Your task to perform on an android device: turn notification dots off Image 0: 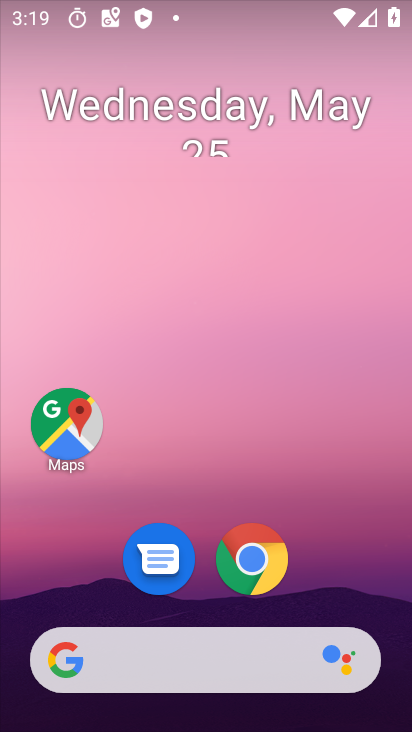
Step 0: press home button
Your task to perform on an android device: turn notification dots off Image 1: 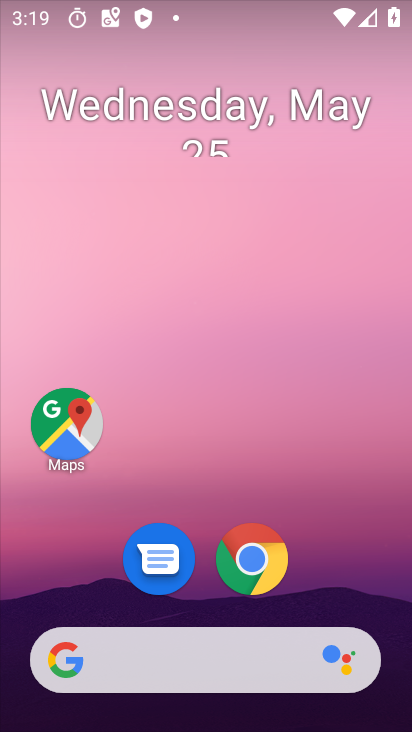
Step 1: drag from (210, 605) to (259, 57)
Your task to perform on an android device: turn notification dots off Image 2: 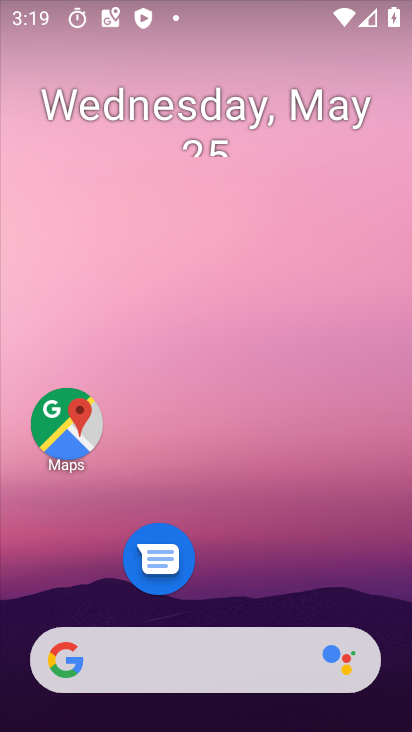
Step 2: drag from (217, 602) to (195, 29)
Your task to perform on an android device: turn notification dots off Image 3: 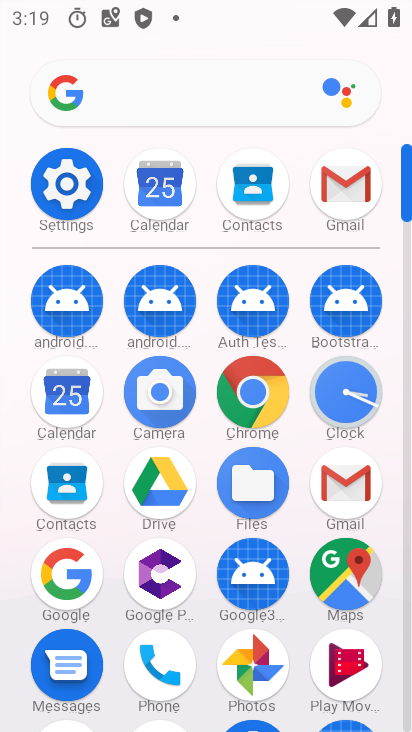
Step 3: click (64, 178)
Your task to perform on an android device: turn notification dots off Image 4: 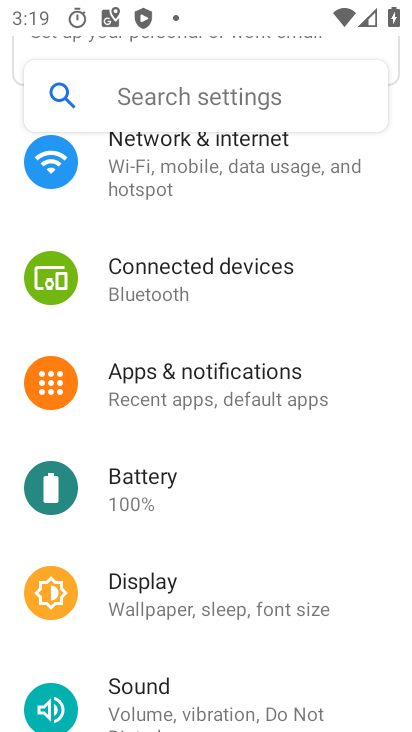
Step 4: click (318, 373)
Your task to perform on an android device: turn notification dots off Image 5: 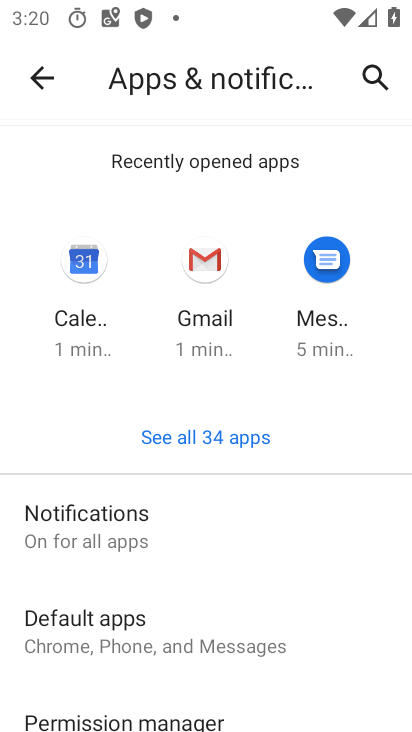
Step 5: click (162, 527)
Your task to perform on an android device: turn notification dots off Image 6: 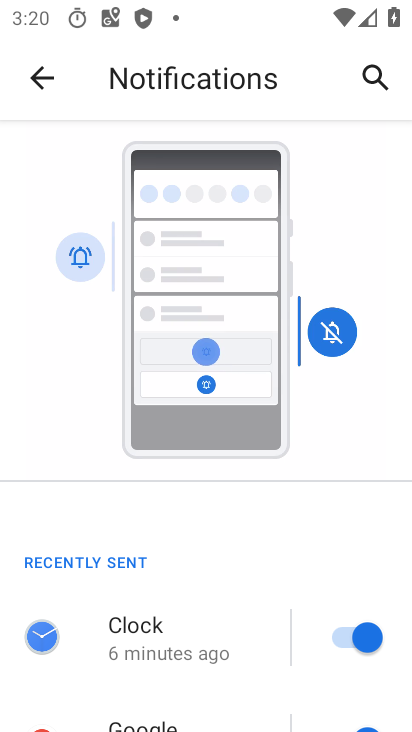
Step 6: drag from (240, 700) to (274, 270)
Your task to perform on an android device: turn notification dots off Image 7: 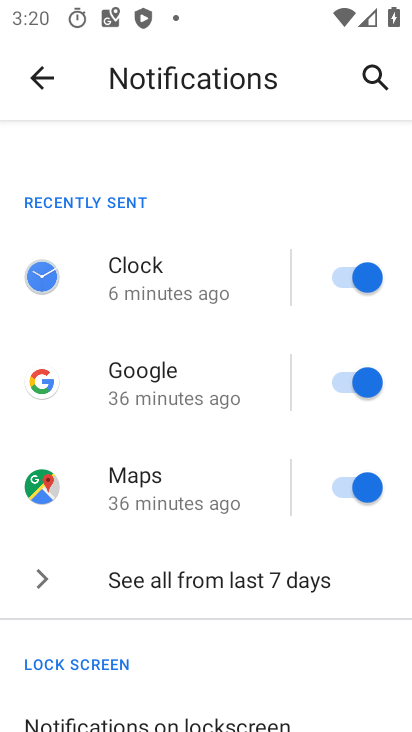
Step 7: drag from (226, 663) to (249, 170)
Your task to perform on an android device: turn notification dots off Image 8: 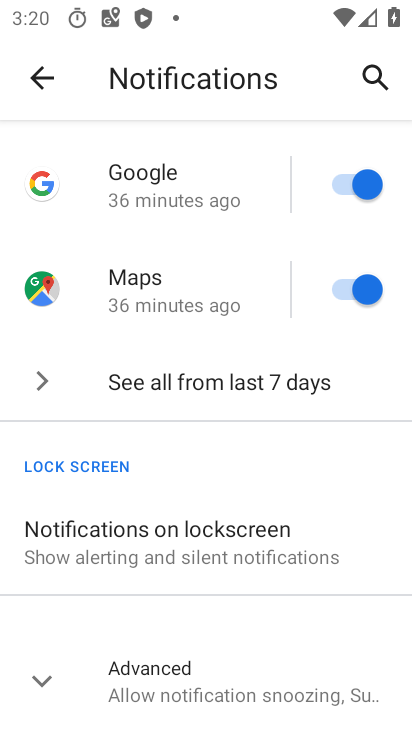
Step 8: click (41, 679)
Your task to perform on an android device: turn notification dots off Image 9: 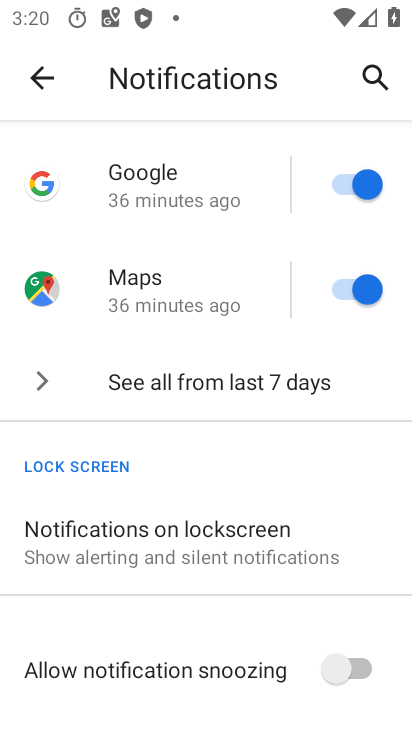
Step 9: task complete